Your task to perform on an android device: open a new tab in the chrome app Image 0: 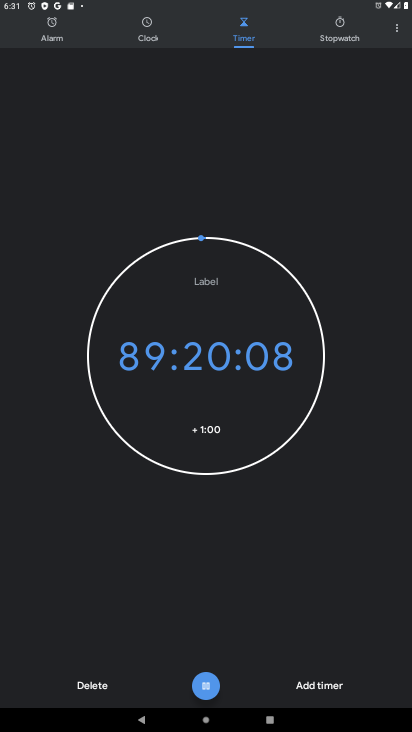
Step 0: press home button
Your task to perform on an android device: open a new tab in the chrome app Image 1: 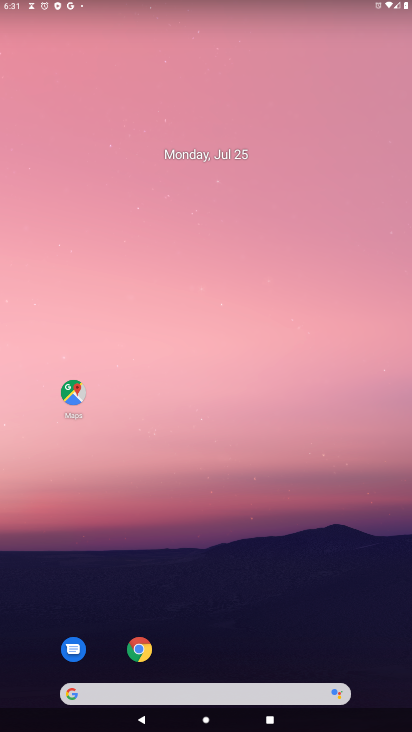
Step 1: drag from (302, 698) to (272, 2)
Your task to perform on an android device: open a new tab in the chrome app Image 2: 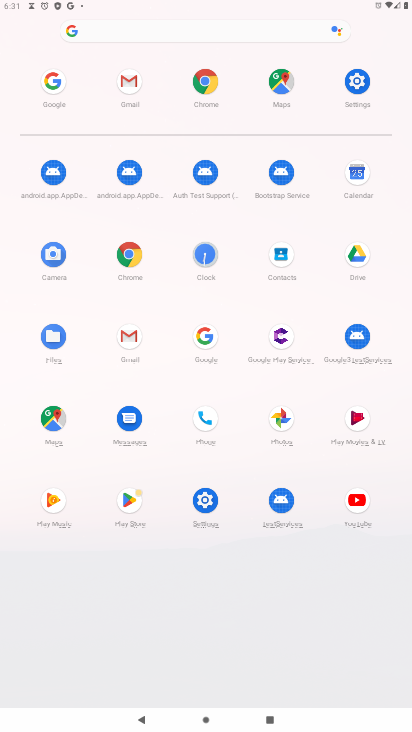
Step 2: click (130, 246)
Your task to perform on an android device: open a new tab in the chrome app Image 3: 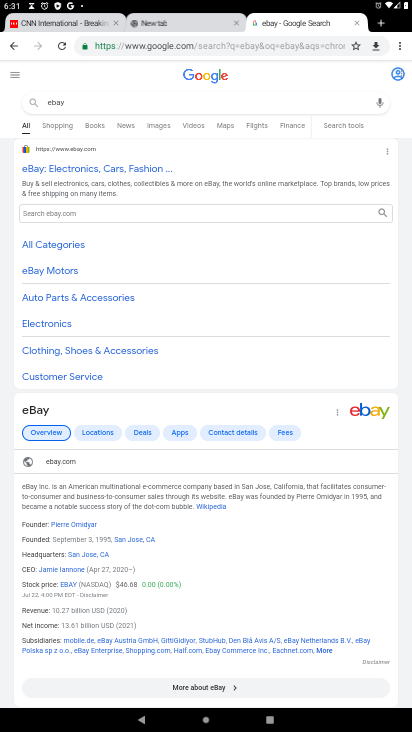
Step 3: task complete